Your task to perform on an android device: turn pop-ups on in chrome Image 0: 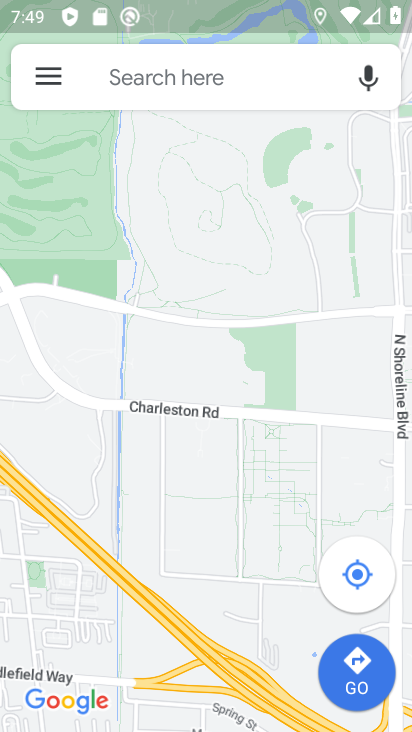
Step 0: press home button
Your task to perform on an android device: turn pop-ups on in chrome Image 1: 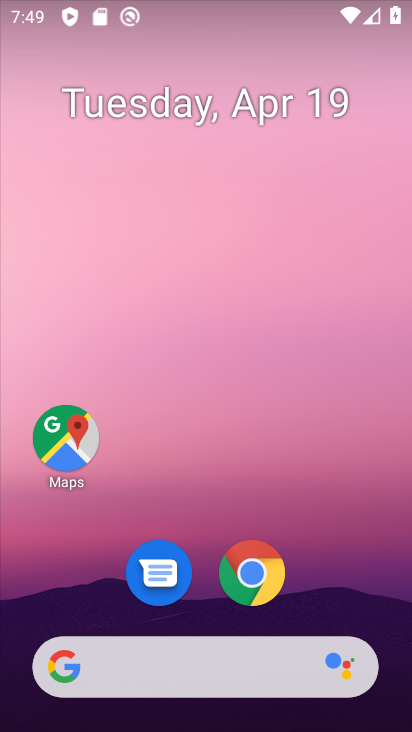
Step 1: click (263, 577)
Your task to perform on an android device: turn pop-ups on in chrome Image 2: 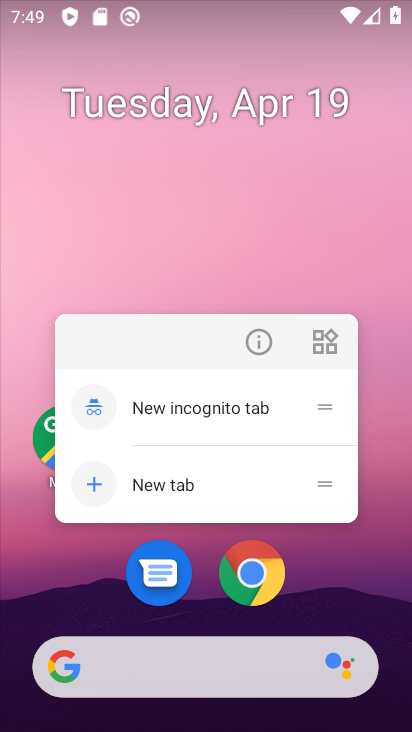
Step 2: click (254, 573)
Your task to perform on an android device: turn pop-ups on in chrome Image 3: 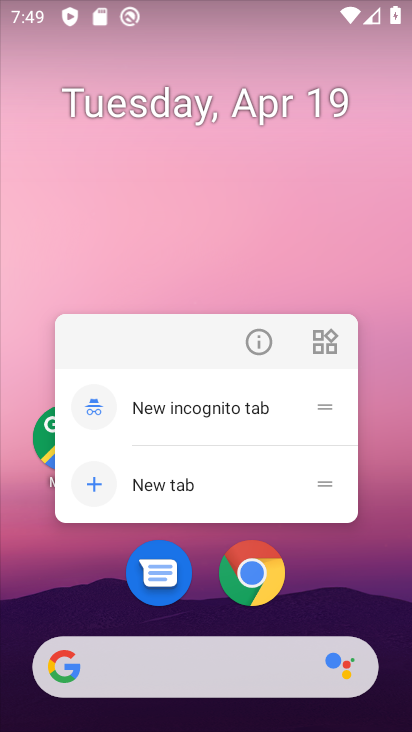
Step 3: click (254, 573)
Your task to perform on an android device: turn pop-ups on in chrome Image 4: 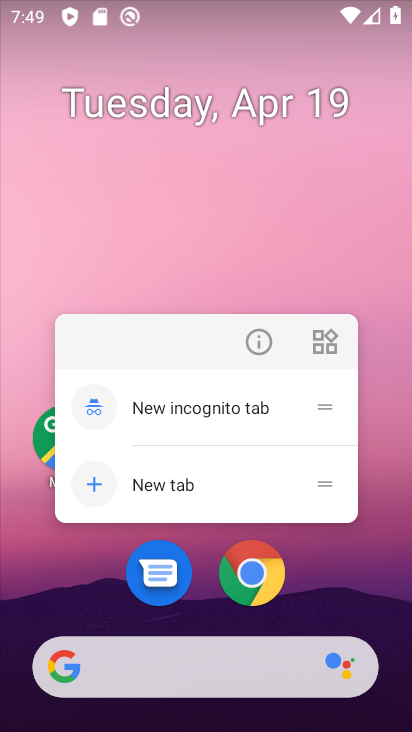
Step 4: click (260, 567)
Your task to perform on an android device: turn pop-ups on in chrome Image 5: 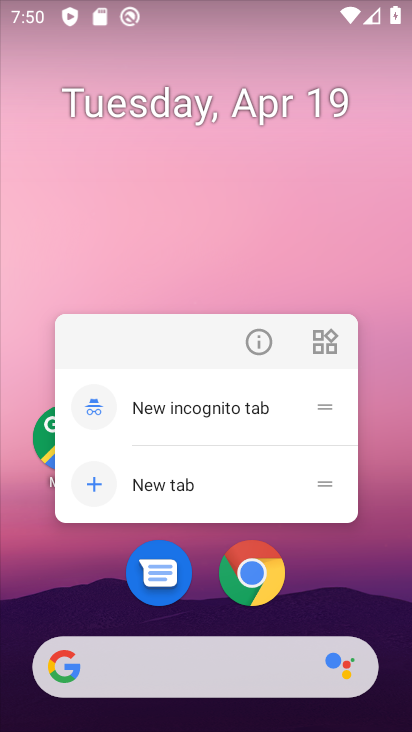
Step 5: click (249, 568)
Your task to perform on an android device: turn pop-ups on in chrome Image 6: 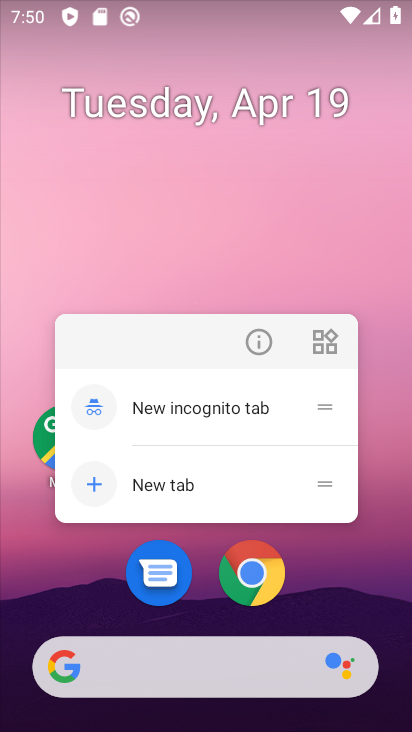
Step 6: click (252, 582)
Your task to perform on an android device: turn pop-ups on in chrome Image 7: 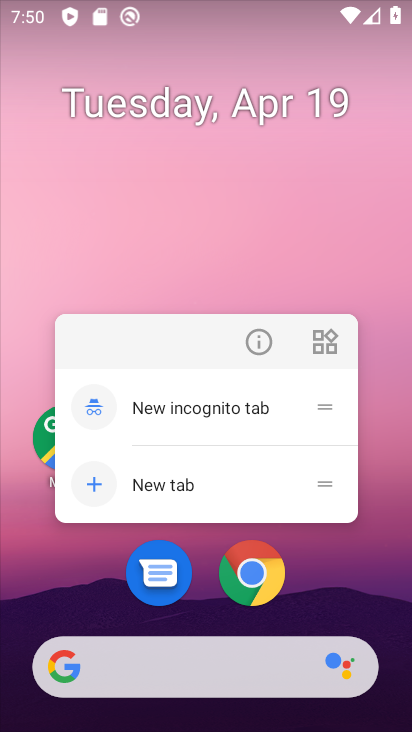
Step 7: click (252, 582)
Your task to perform on an android device: turn pop-ups on in chrome Image 8: 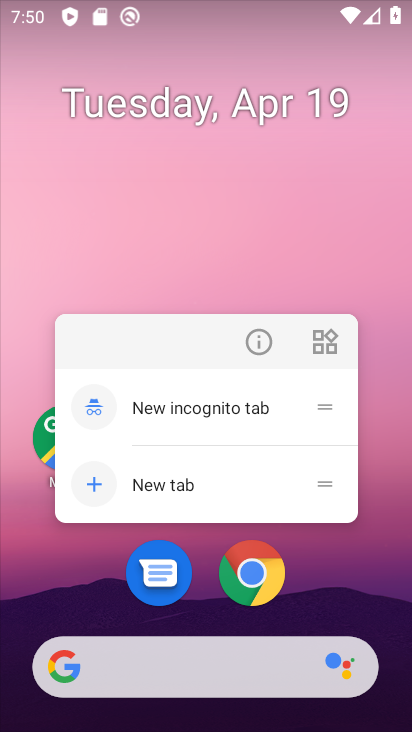
Step 8: drag from (307, 570) to (381, 2)
Your task to perform on an android device: turn pop-ups on in chrome Image 9: 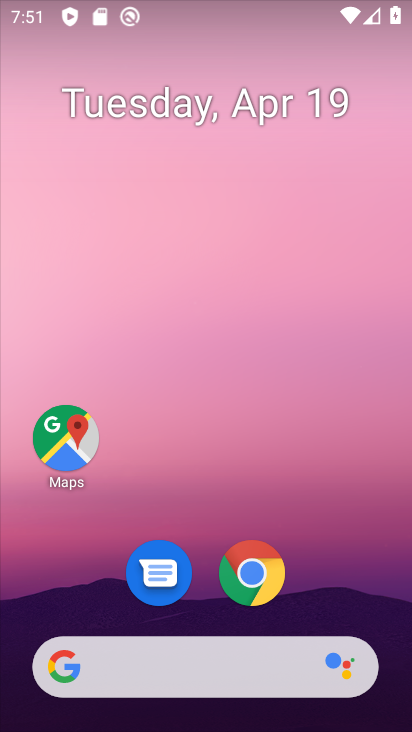
Step 9: drag from (344, 459) to (282, 5)
Your task to perform on an android device: turn pop-ups on in chrome Image 10: 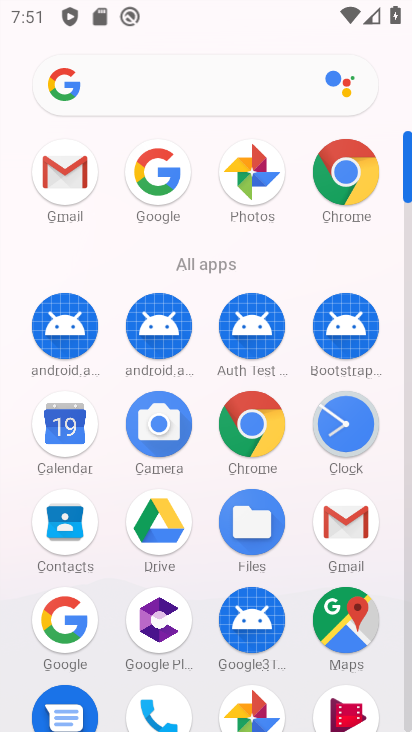
Step 10: click (239, 412)
Your task to perform on an android device: turn pop-ups on in chrome Image 11: 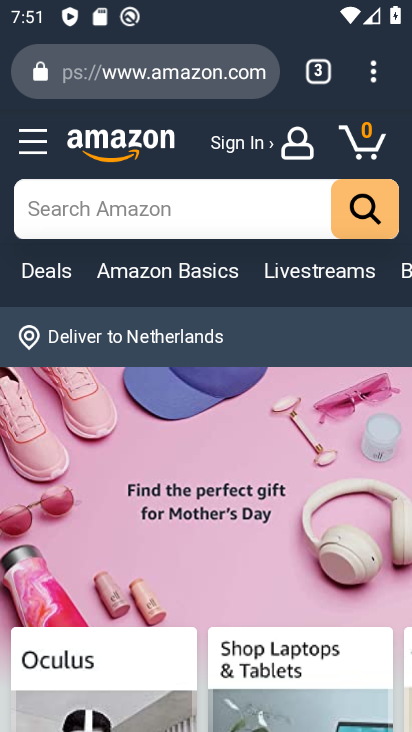
Step 11: drag from (372, 72) to (146, 553)
Your task to perform on an android device: turn pop-ups on in chrome Image 12: 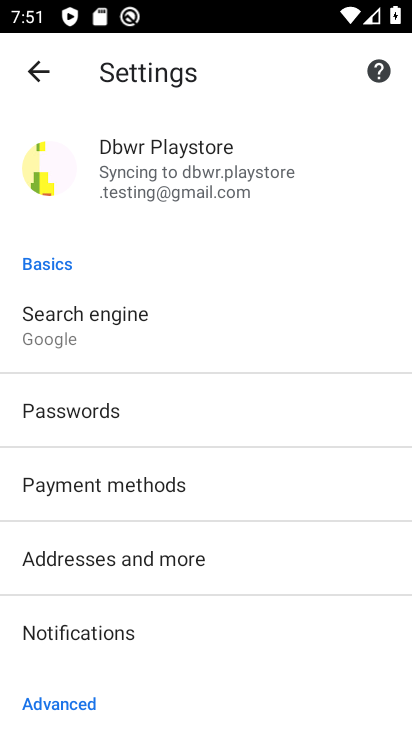
Step 12: drag from (206, 628) to (206, 318)
Your task to perform on an android device: turn pop-ups on in chrome Image 13: 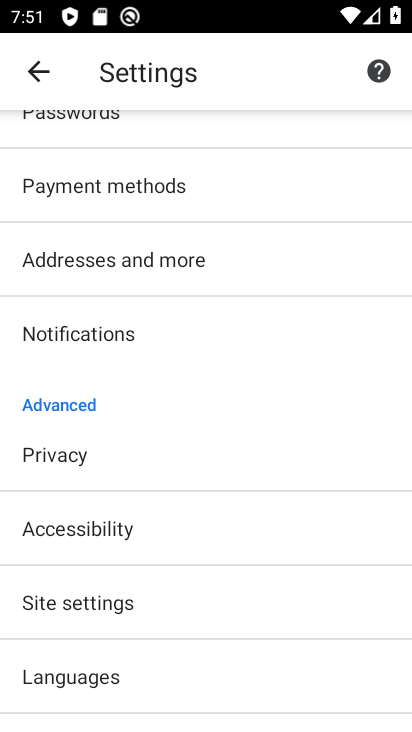
Step 13: click (91, 595)
Your task to perform on an android device: turn pop-ups on in chrome Image 14: 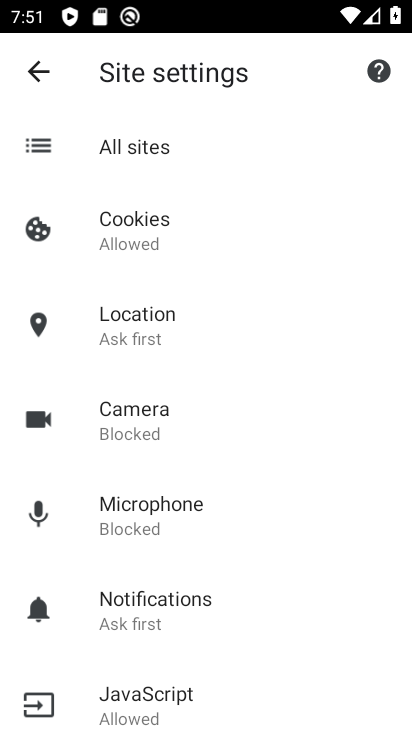
Step 14: drag from (182, 655) to (181, 244)
Your task to perform on an android device: turn pop-ups on in chrome Image 15: 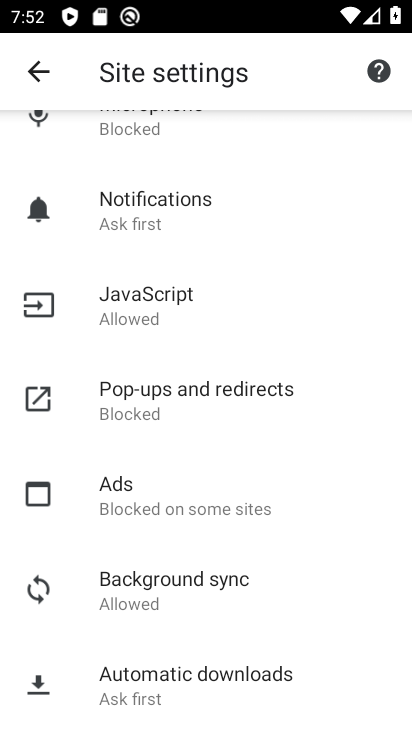
Step 15: click (156, 398)
Your task to perform on an android device: turn pop-ups on in chrome Image 16: 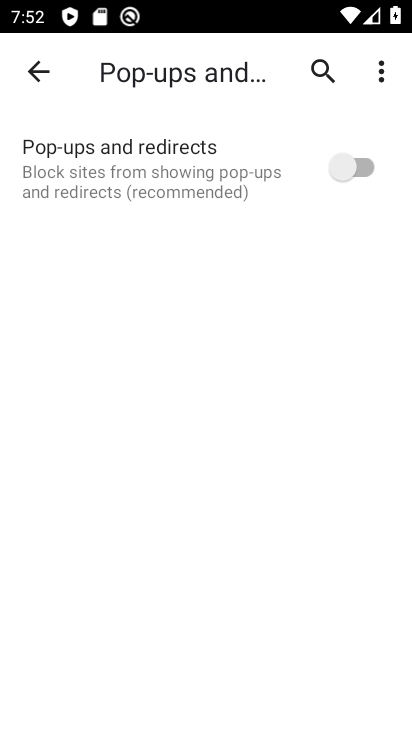
Step 16: click (355, 160)
Your task to perform on an android device: turn pop-ups on in chrome Image 17: 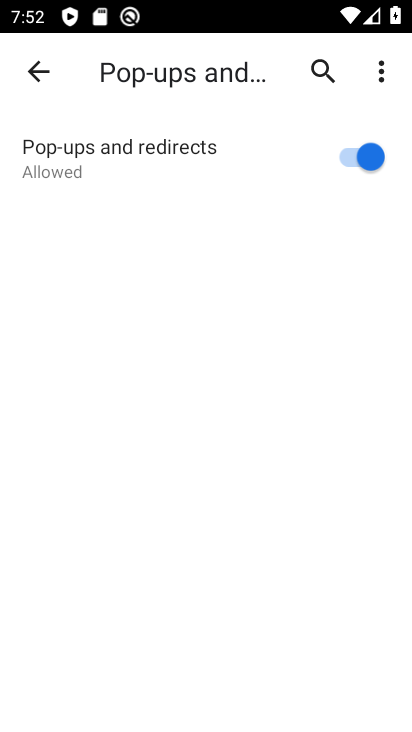
Step 17: task complete